Your task to perform on an android device: delete browsing data in the chrome app Image 0: 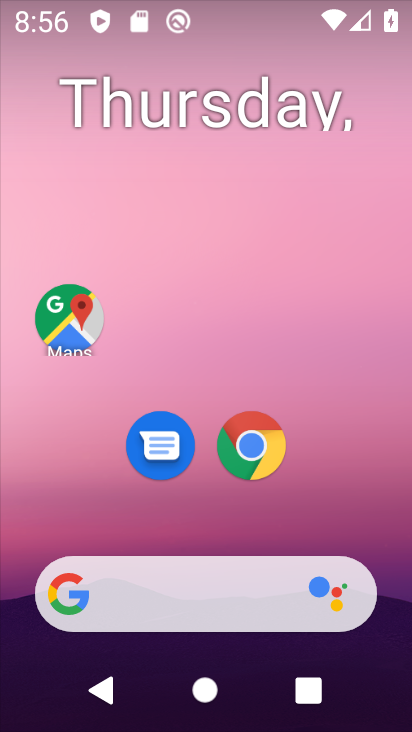
Step 0: click (250, 438)
Your task to perform on an android device: delete browsing data in the chrome app Image 1: 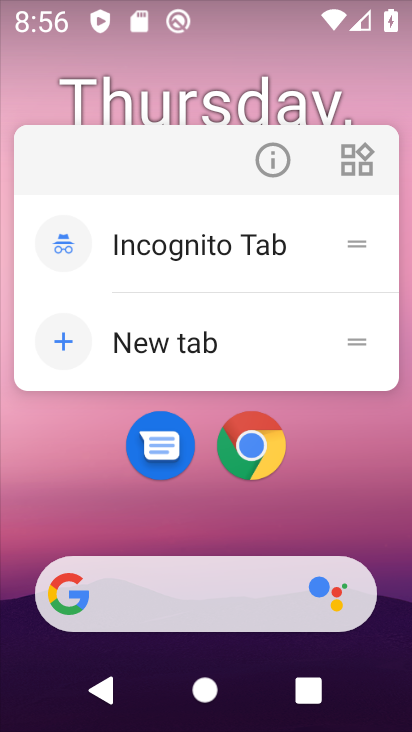
Step 1: click (250, 436)
Your task to perform on an android device: delete browsing data in the chrome app Image 2: 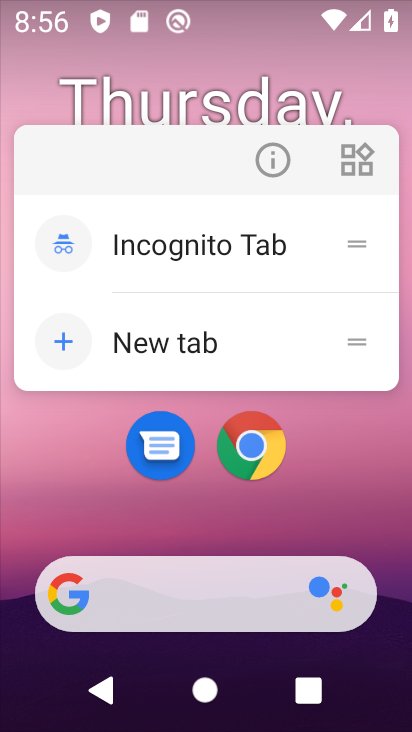
Step 2: click (250, 436)
Your task to perform on an android device: delete browsing data in the chrome app Image 3: 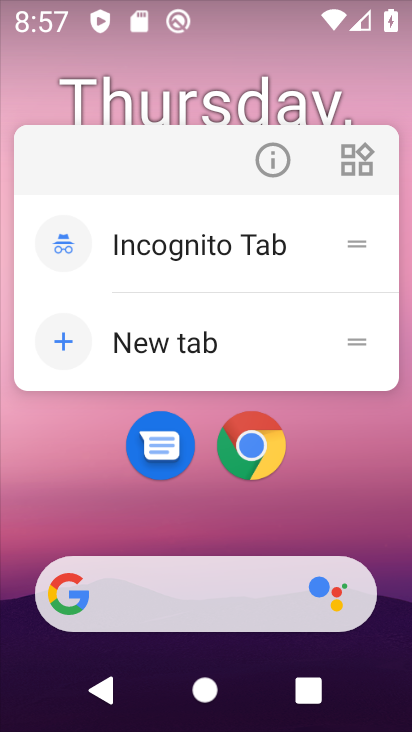
Step 3: click (250, 436)
Your task to perform on an android device: delete browsing data in the chrome app Image 4: 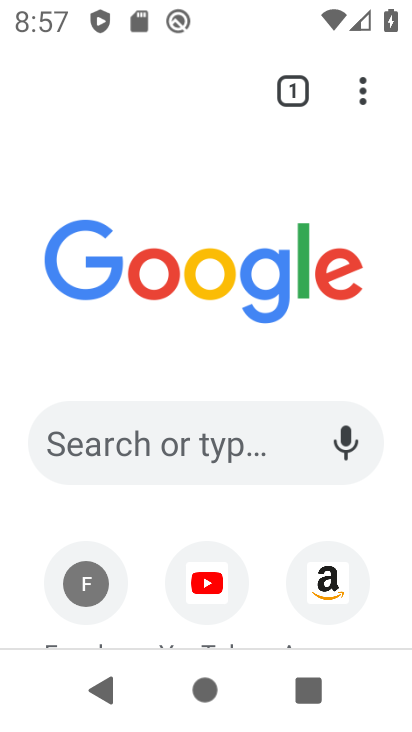
Step 4: click (365, 87)
Your task to perform on an android device: delete browsing data in the chrome app Image 5: 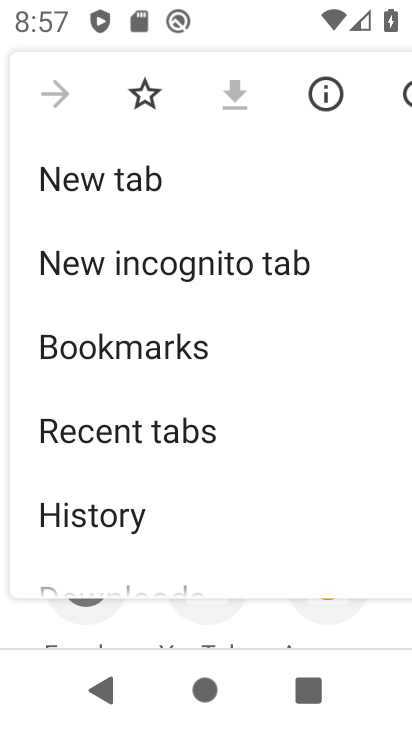
Step 5: click (87, 508)
Your task to perform on an android device: delete browsing data in the chrome app Image 6: 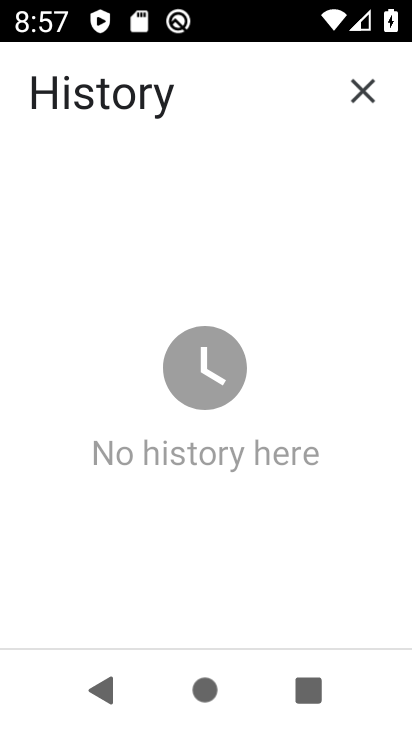
Step 6: task complete